Your task to perform on an android device: turn on improve location accuracy Image 0: 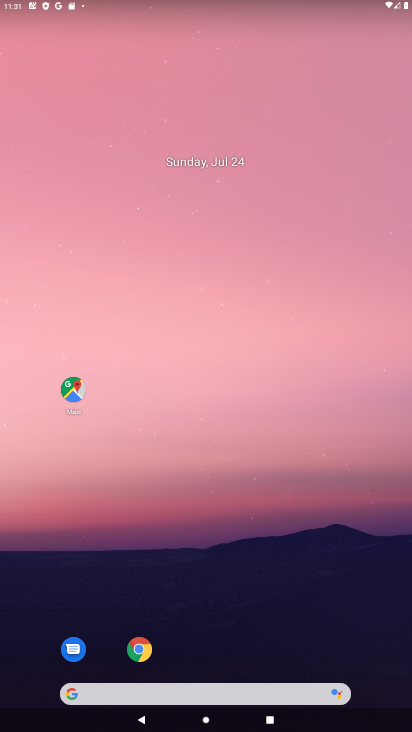
Step 0: drag from (220, 665) to (253, 0)
Your task to perform on an android device: turn on improve location accuracy Image 1: 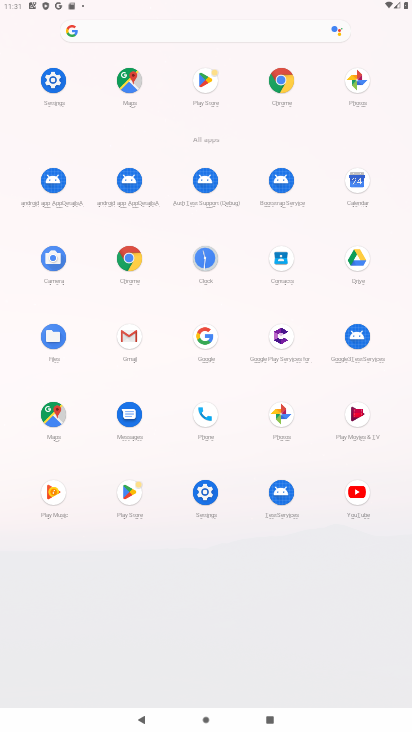
Step 1: click (203, 489)
Your task to perform on an android device: turn on improve location accuracy Image 2: 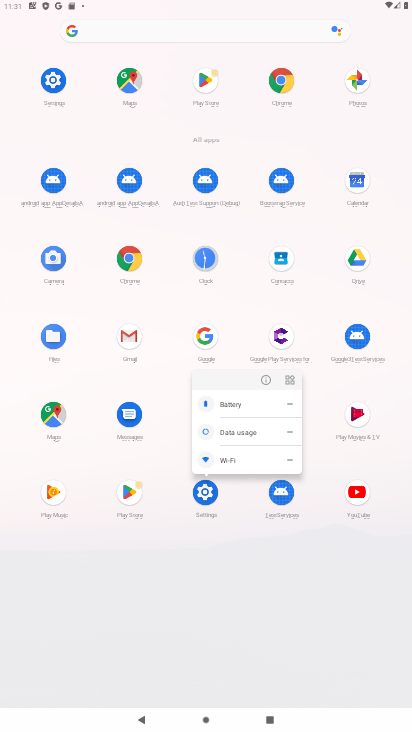
Step 2: click (210, 489)
Your task to perform on an android device: turn on improve location accuracy Image 3: 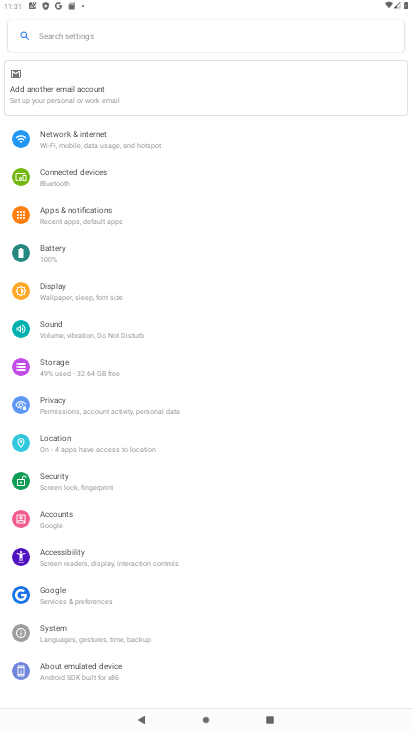
Step 3: click (78, 441)
Your task to perform on an android device: turn on improve location accuracy Image 4: 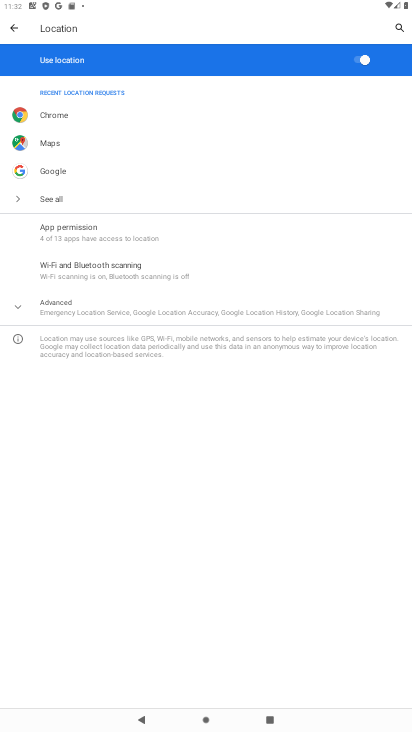
Step 4: click (17, 305)
Your task to perform on an android device: turn on improve location accuracy Image 5: 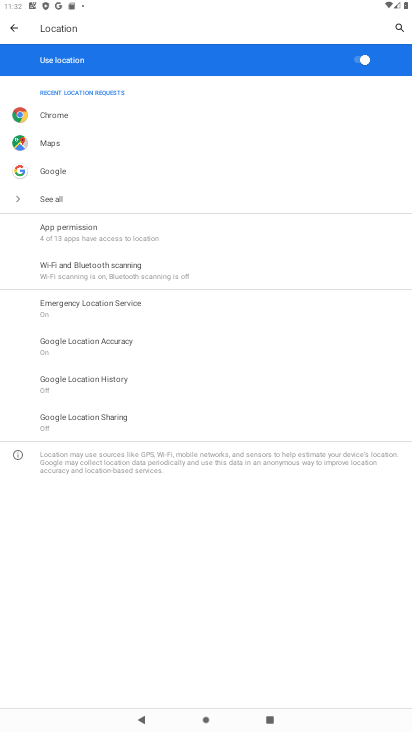
Step 5: click (98, 345)
Your task to perform on an android device: turn on improve location accuracy Image 6: 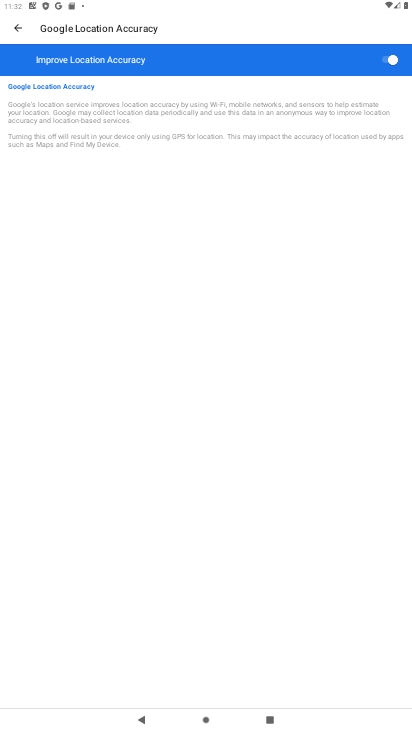
Step 6: task complete